Your task to perform on an android device: Open eBay Image 0: 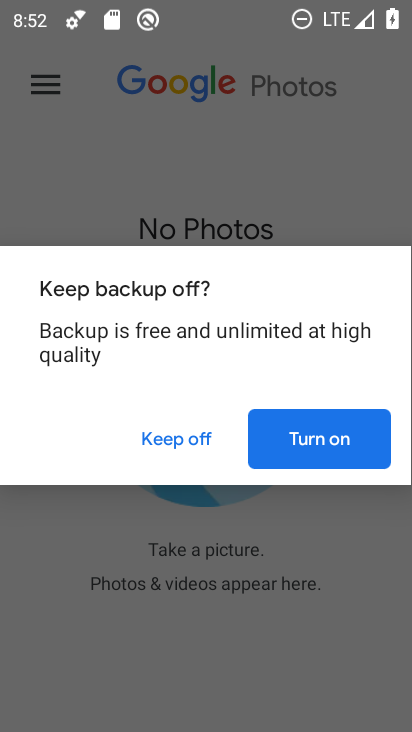
Step 0: click (165, 449)
Your task to perform on an android device: Open eBay Image 1: 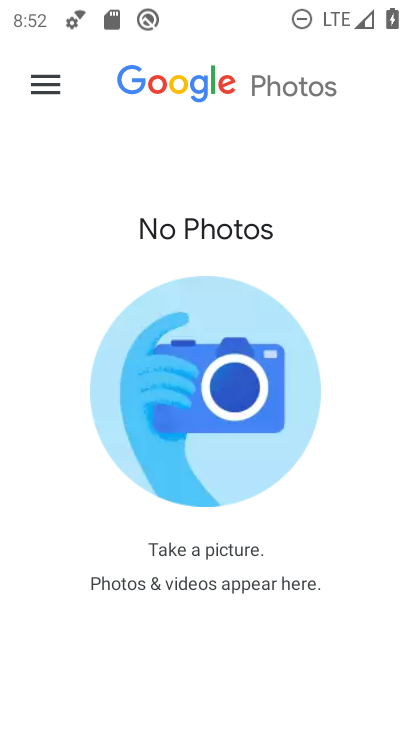
Step 1: press home button
Your task to perform on an android device: Open eBay Image 2: 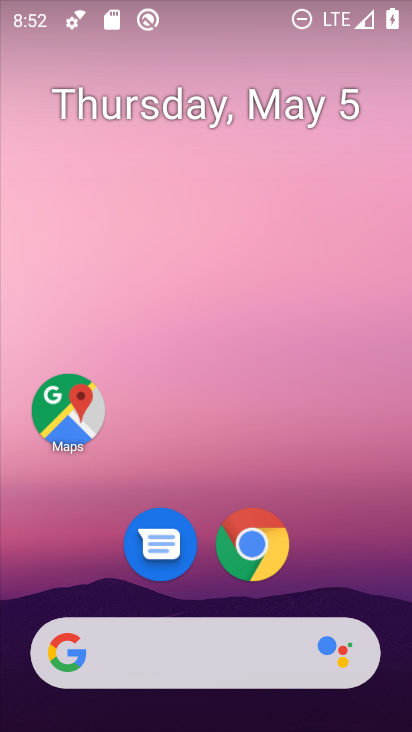
Step 2: drag from (69, 612) to (179, 149)
Your task to perform on an android device: Open eBay Image 3: 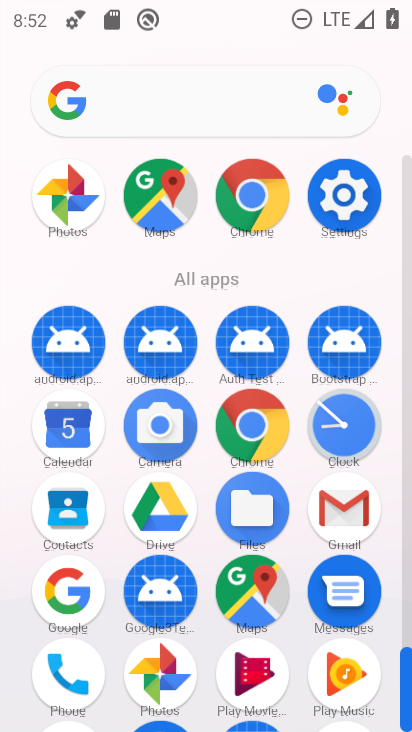
Step 3: click (264, 184)
Your task to perform on an android device: Open eBay Image 4: 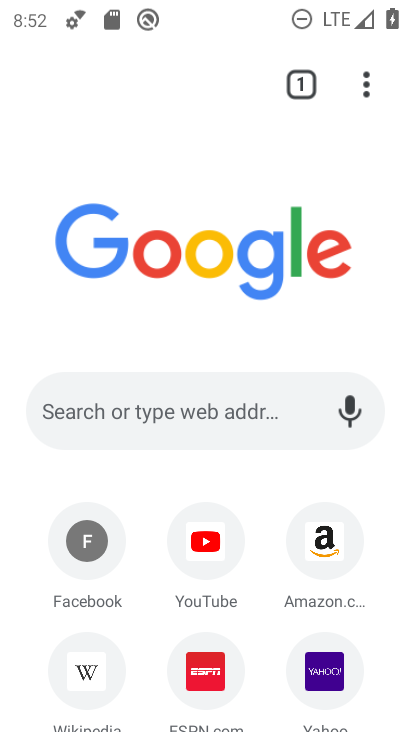
Step 4: drag from (133, 678) to (229, 409)
Your task to perform on an android device: Open eBay Image 5: 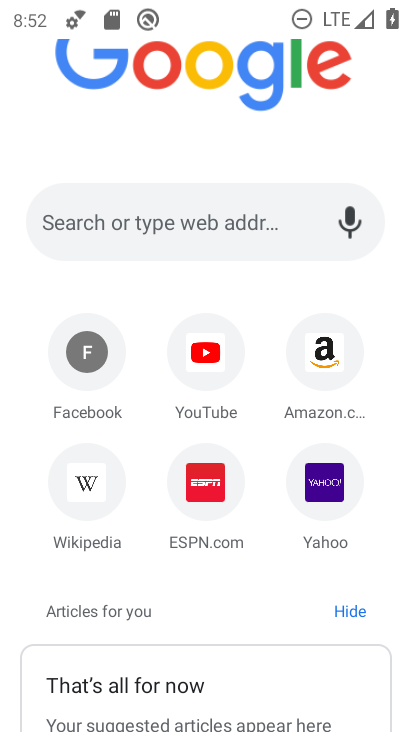
Step 5: click (173, 217)
Your task to perform on an android device: Open eBay Image 6: 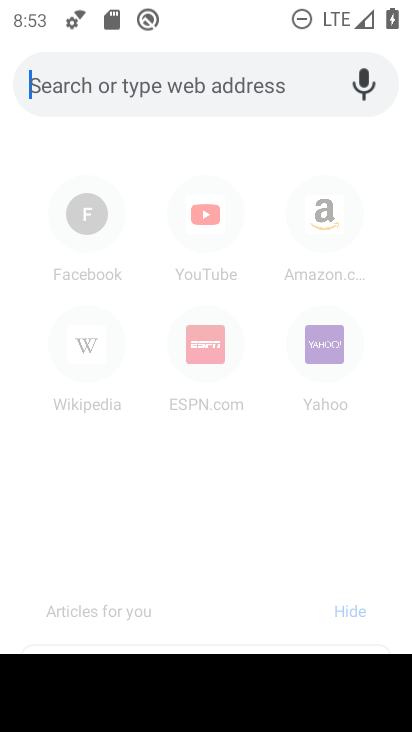
Step 6: type ""
Your task to perform on an android device: Open eBay Image 7: 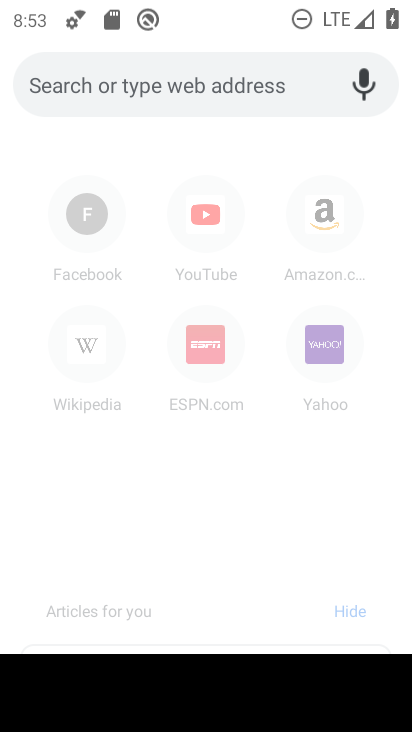
Step 7: type "eBay"
Your task to perform on an android device: Open eBay Image 8: 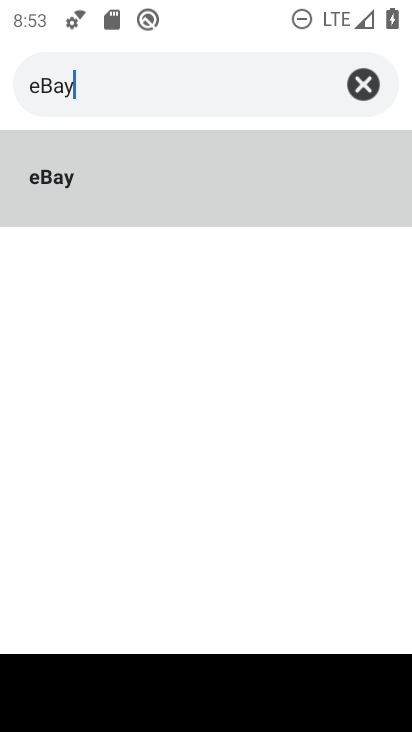
Step 8: click (125, 183)
Your task to perform on an android device: Open eBay Image 9: 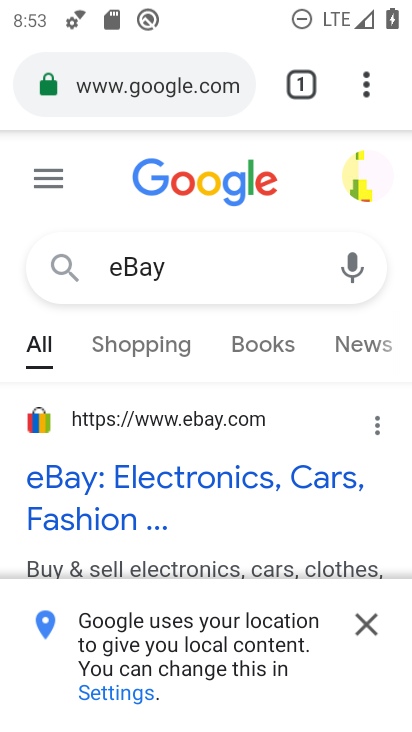
Step 9: click (382, 621)
Your task to perform on an android device: Open eBay Image 10: 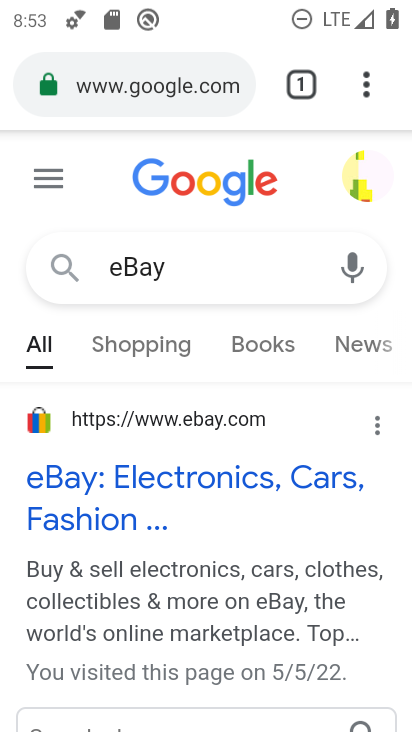
Step 10: click (100, 529)
Your task to perform on an android device: Open eBay Image 11: 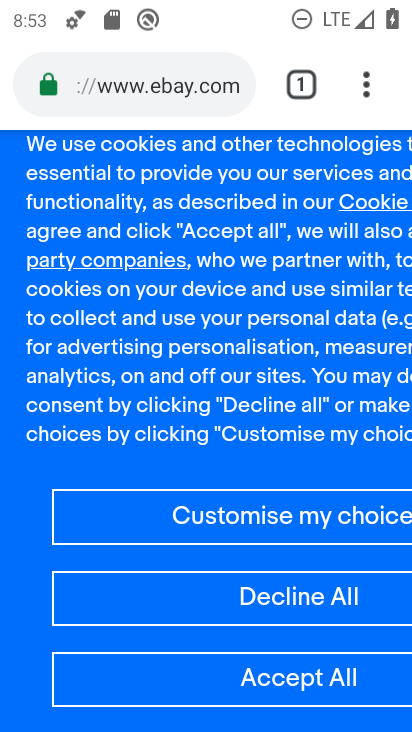
Step 11: click (307, 686)
Your task to perform on an android device: Open eBay Image 12: 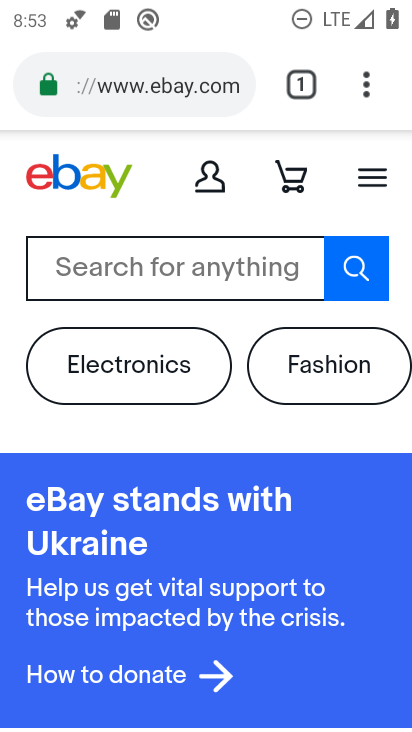
Step 12: click (194, 697)
Your task to perform on an android device: Open eBay Image 13: 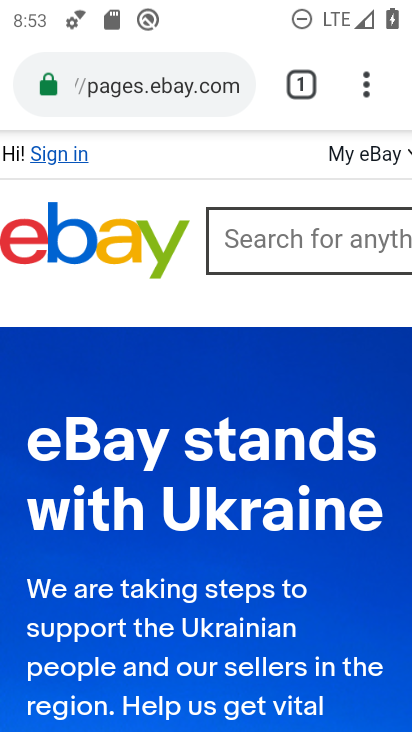
Step 13: task complete